Your task to perform on an android device: change your default location settings in chrome Image 0: 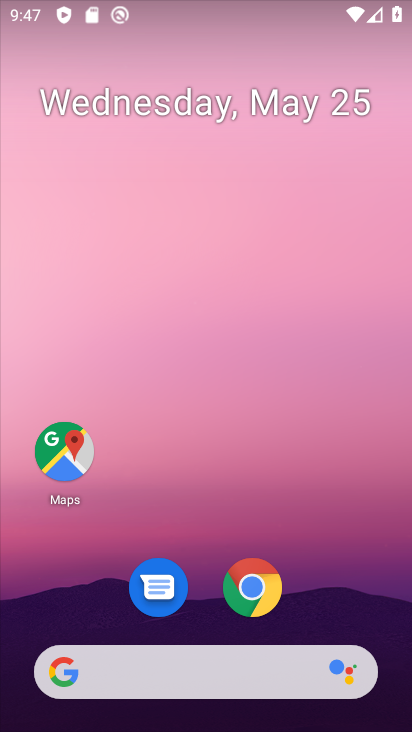
Step 0: drag from (216, 605) to (260, 39)
Your task to perform on an android device: change your default location settings in chrome Image 1: 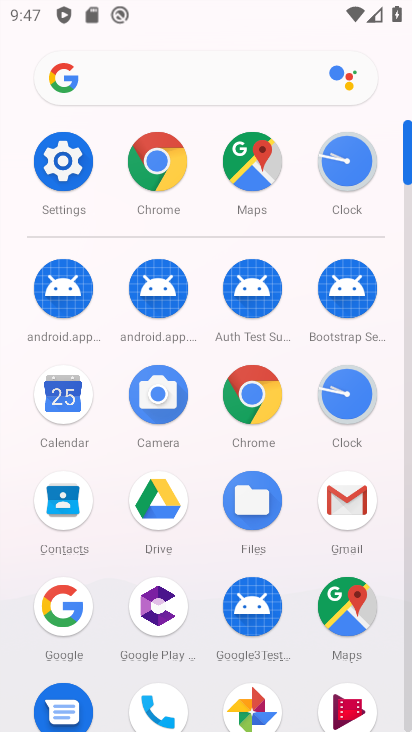
Step 1: click (246, 405)
Your task to perform on an android device: change your default location settings in chrome Image 2: 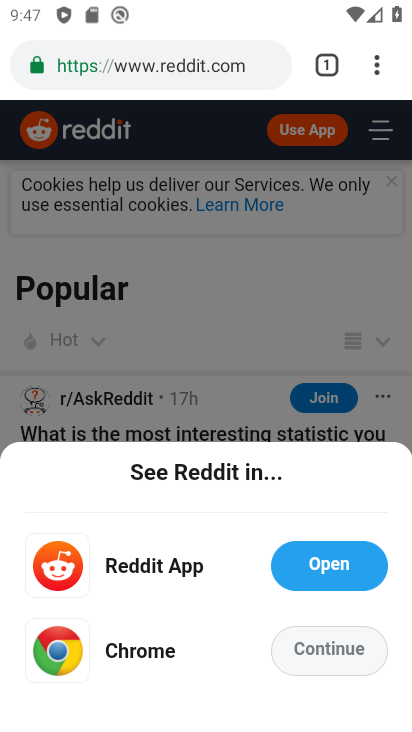
Step 2: click (376, 75)
Your task to perform on an android device: change your default location settings in chrome Image 3: 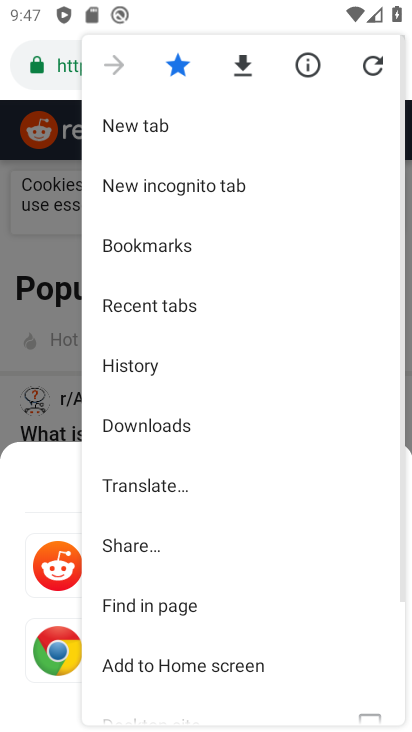
Step 3: drag from (154, 593) to (157, 402)
Your task to perform on an android device: change your default location settings in chrome Image 4: 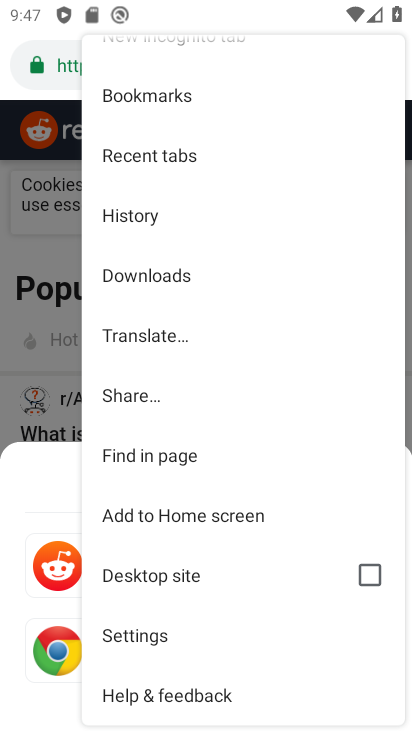
Step 4: click (135, 645)
Your task to perform on an android device: change your default location settings in chrome Image 5: 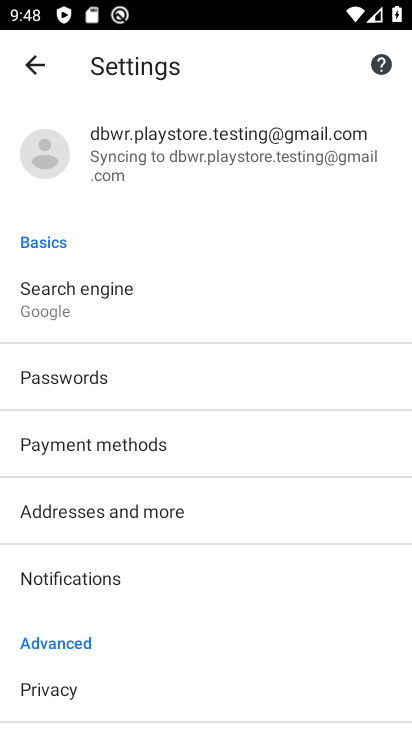
Step 5: drag from (134, 605) to (185, 343)
Your task to perform on an android device: change your default location settings in chrome Image 6: 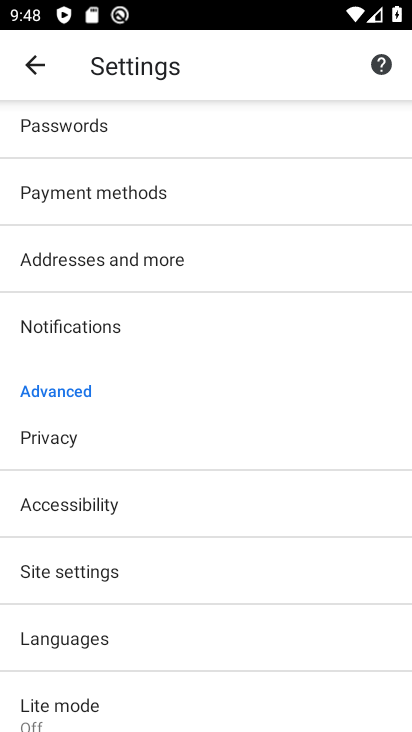
Step 6: drag from (64, 648) to (111, 382)
Your task to perform on an android device: change your default location settings in chrome Image 7: 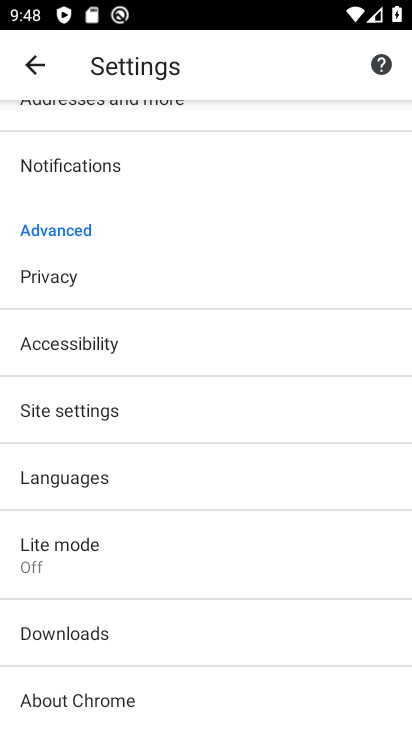
Step 7: click (83, 419)
Your task to perform on an android device: change your default location settings in chrome Image 8: 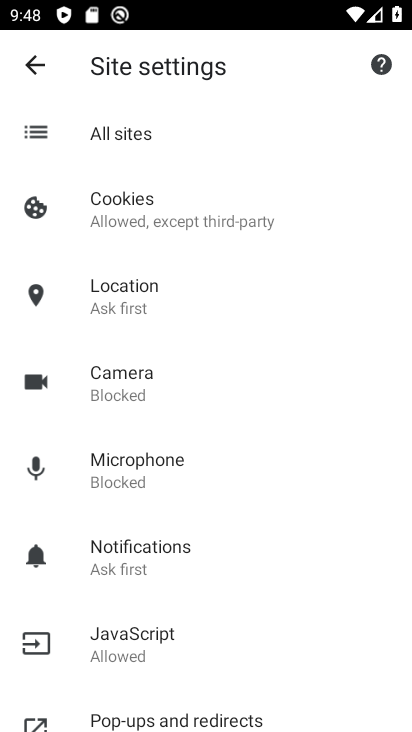
Step 8: click (136, 303)
Your task to perform on an android device: change your default location settings in chrome Image 9: 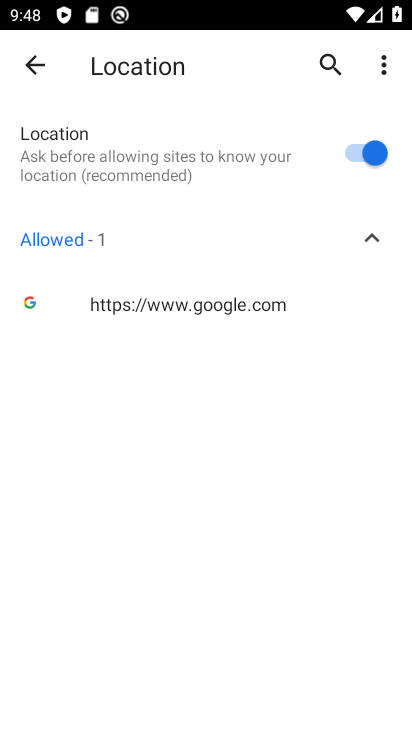
Step 9: click (339, 160)
Your task to perform on an android device: change your default location settings in chrome Image 10: 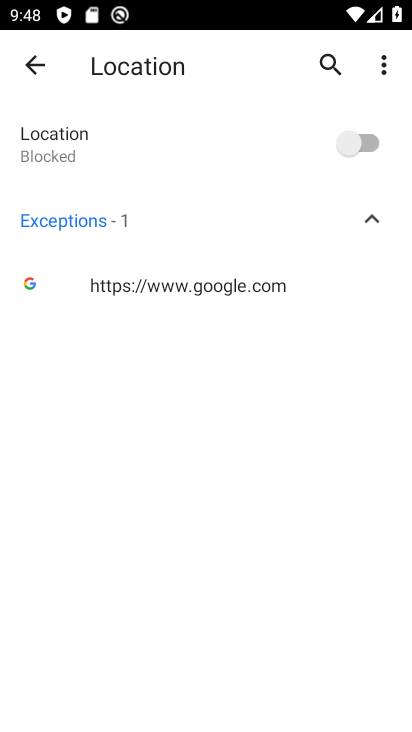
Step 10: task complete